Your task to perform on an android device: Search for Italian restaurants on Maps Image 0: 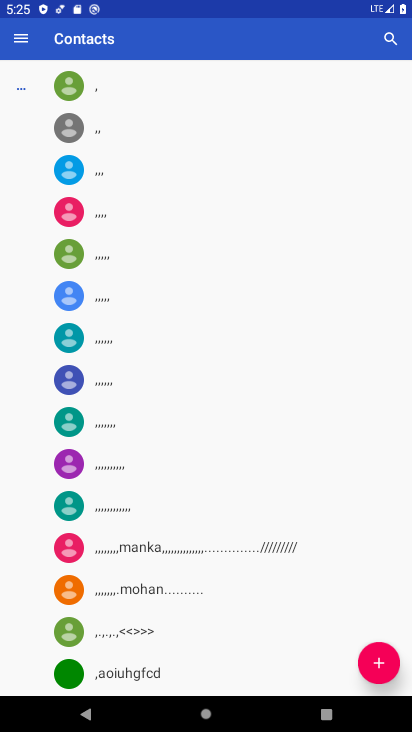
Step 0: press home button
Your task to perform on an android device: Search for Italian restaurants on Maps Image 1: 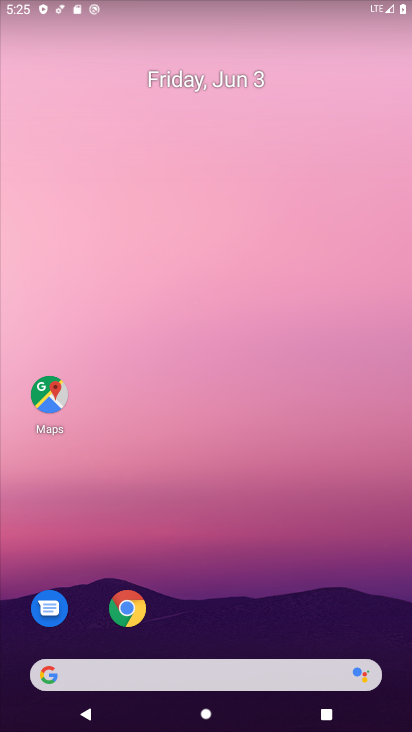
Step 1: click (44, 398)
Your task to perform on an android device: Search for Italian restaurants on Maps Image 2: 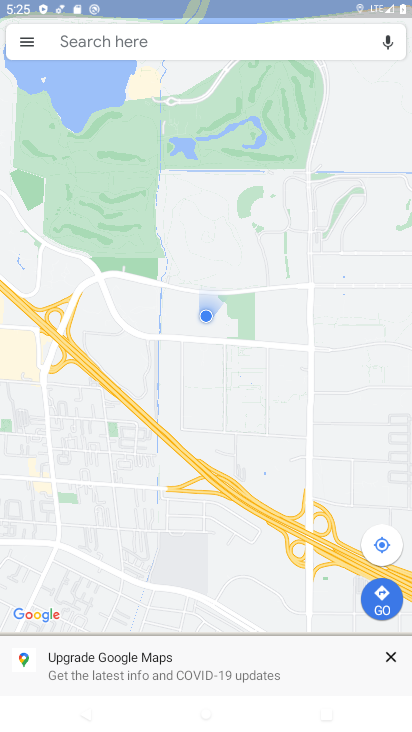
Step 2: click (207, 48)
Your task to perform on an android device: Search for Italian restaurants on Maps Image 3: 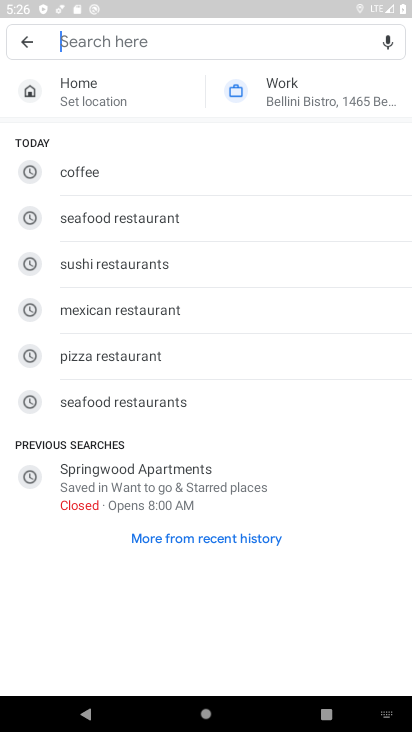
Step 3: type "Italian restaurant"
Your task to perform on an android device: Search for Italian restaurants on Maps Image 4: 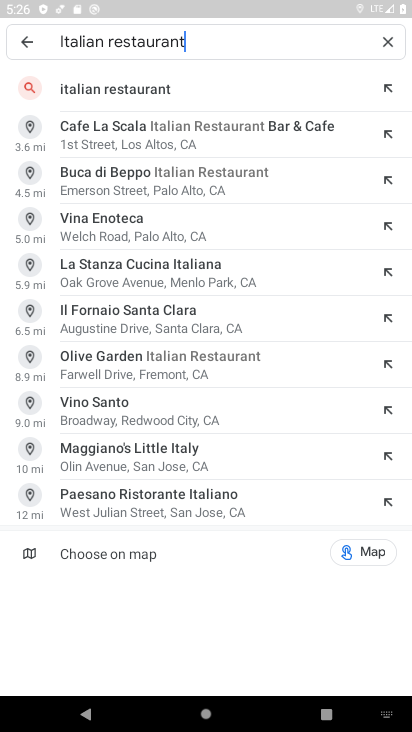
Step 4: click (126, 87)
Your task to perform on an android device: Search for Italian restaurants on Maps Image 5: 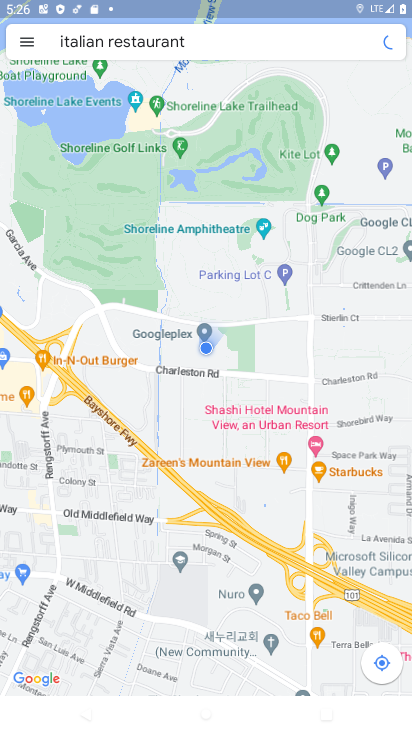
Step 5: click (126, 87)
Your task to perform on an android device: Search for Italian restaurants on Maps Image 6: 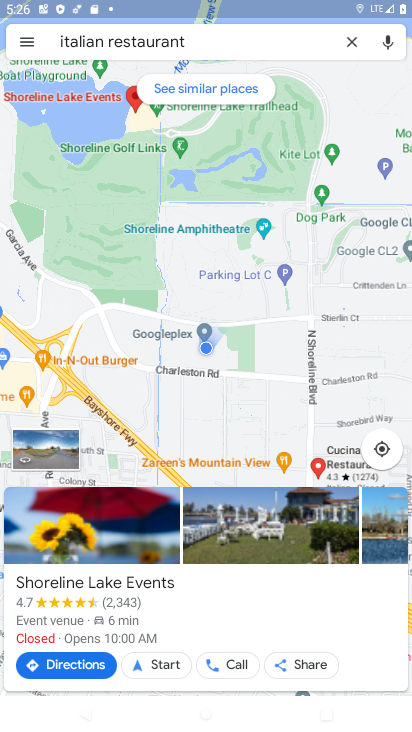
Step 6: task complete